Your task to perform on an android device: What's the weather going to be tomorrow? Image 0: 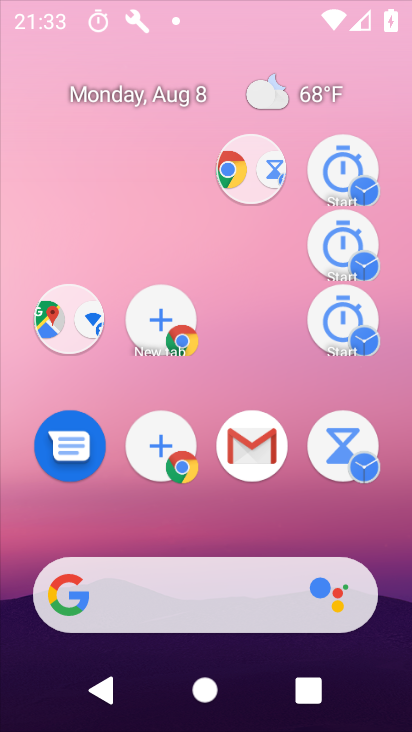
Step 0: click (186, 170)
Your task to perform on an android device: What's the weather going to be tomorrow? Image 1: 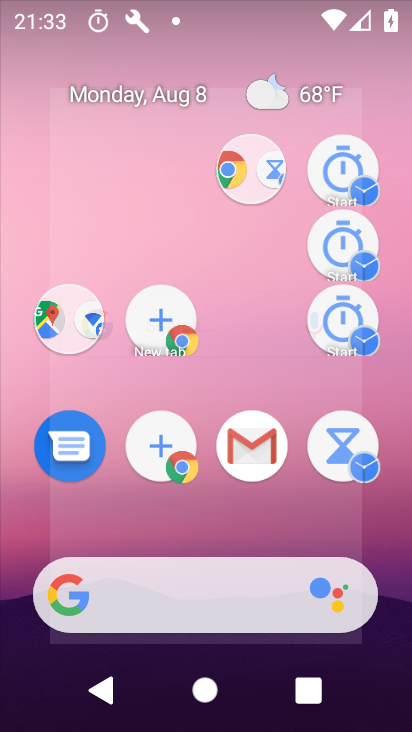
Step 1: drag from (235, 319) to (222, 208)
Your task to perform on an android device: What's the weather going to be tomorrow? Image 2: 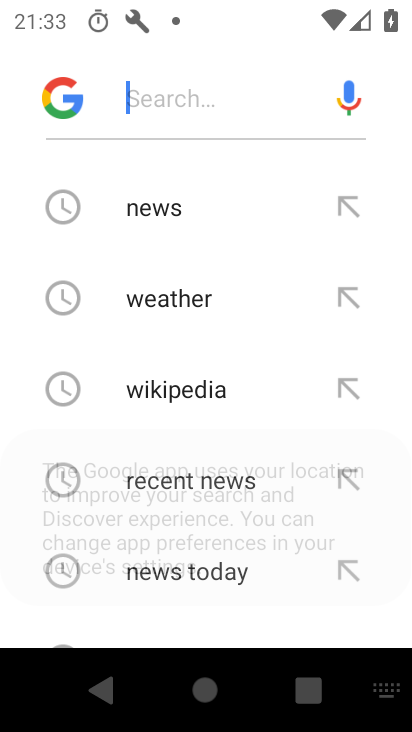
Step 2: press back button
Your task to perform on an android device: What's the weather going to be tomorrow? Image 3: 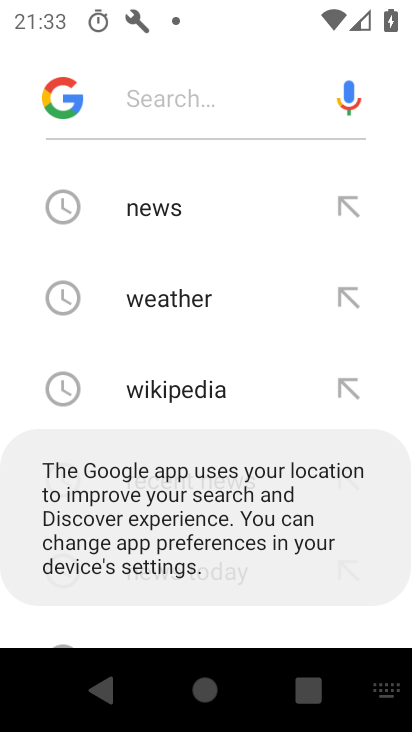
Step 3: press back button
Your task to perform on an android device: What's the weather going to be tomorrow? Image 4: 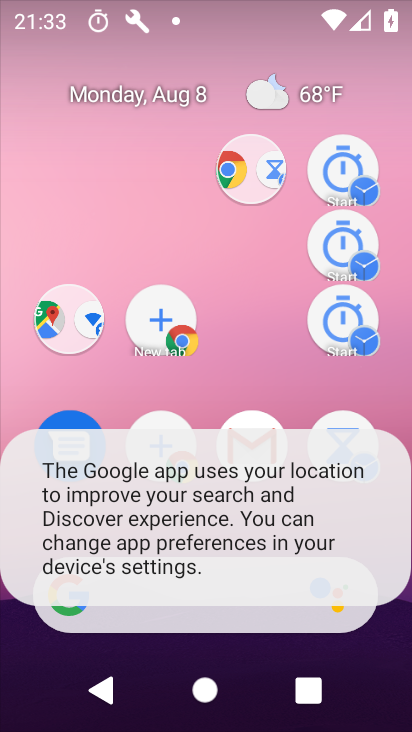
Step 4: press back button
Your task to perform on an android device: What's the weather going to be tomorrow? Image 5: 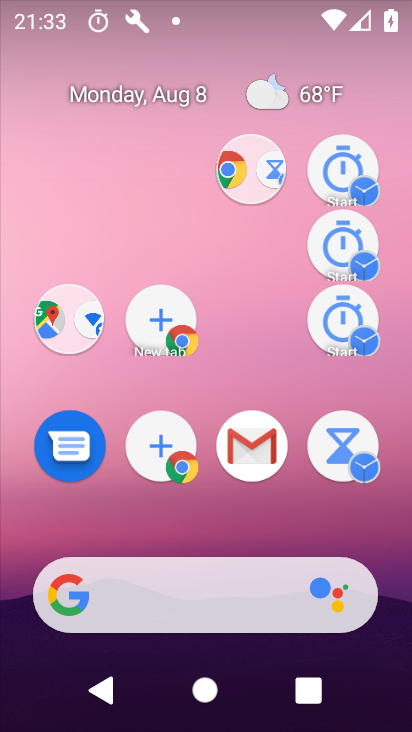
Step 5: drag from (227, 529) to (141, 67)
Your task to perform on an android device: What's the weather going to be tomorrow? Image 6: 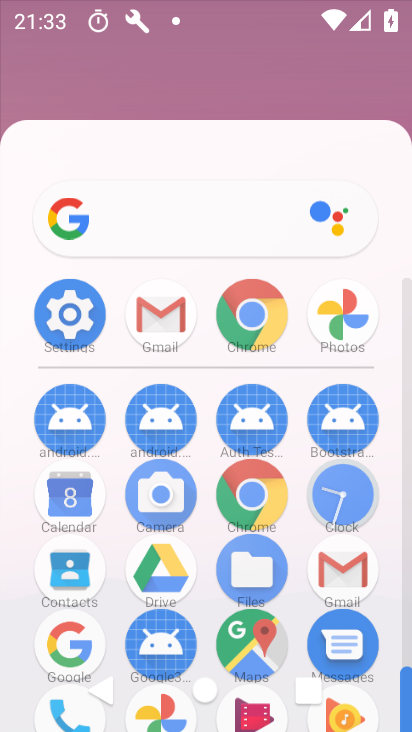
Step 6: drag from (201, 372) to (163, 88)
Your task to perform on an android device: What's the weather going to be tomorrow? Image 7: 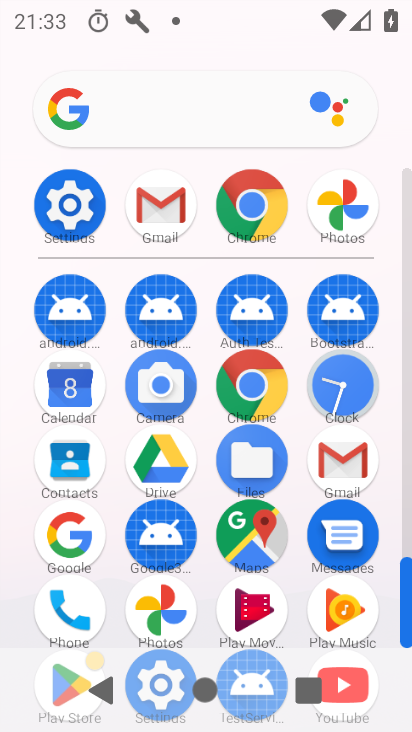
Step 7: click (262, 210)
Your task to perform on an android device: What's the weather going to be tomorrow? Image 8: 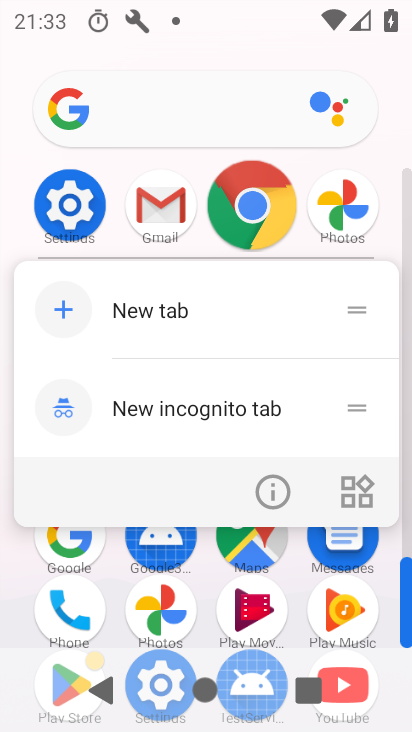
Step 8: click (261, 209)
Your task to perform on an android device: What's the weather going to be tomorrow? Image 9: 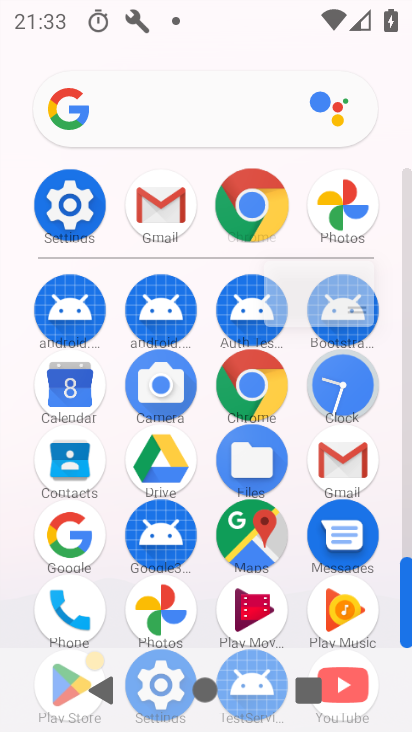
Step 9: click (260, 210)
Your task to perform on an android device: What's the weather going to be tomorrow? Image 10: 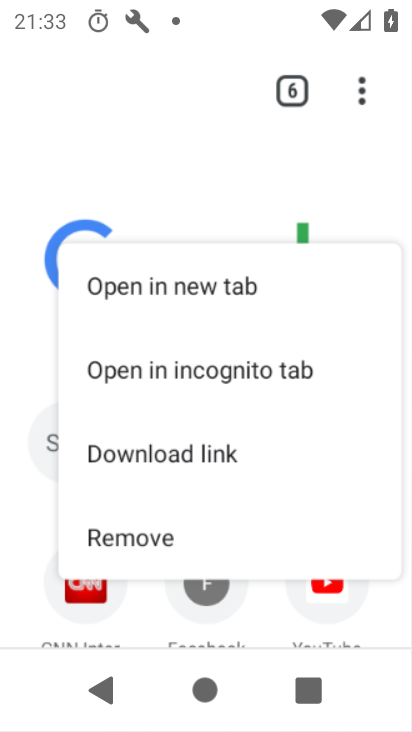
Step 10: click (259, 211)
Your task to perform on an android device: What's the weather going to be tomorrow? Image 11: 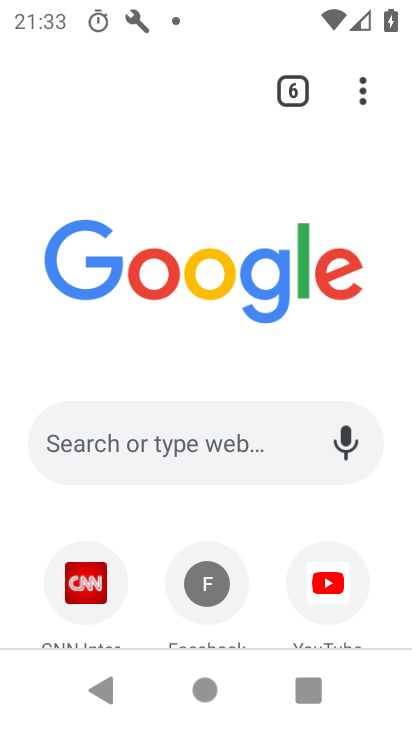
Step 11: click (98, 438)
Your task to perform on an android device: What's the weather going to be tomorrow? Image 12: 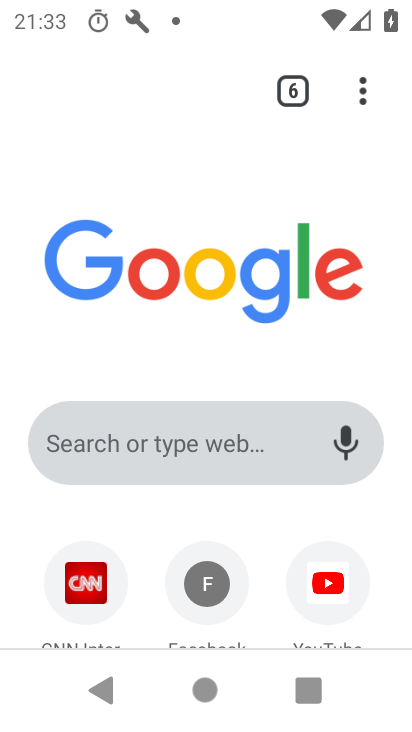
Step 12: click (104, 440)
Your task to perform on an android device: What's the weather going to be tomorrow? Image 13: 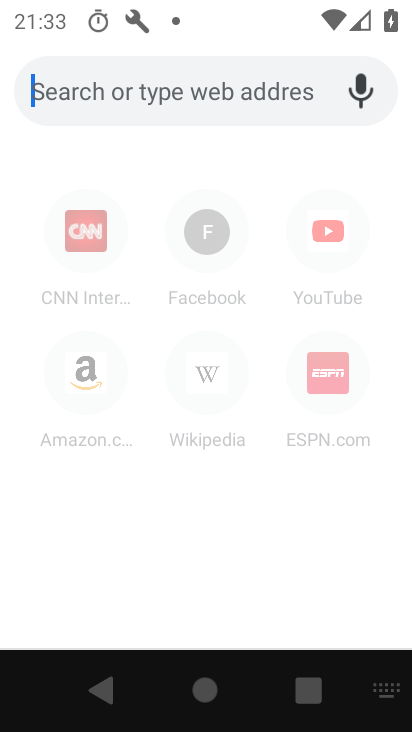
Step 13: click (110, 439)
Your task to perform on an android device: What's the weather going to be tomorrow? Image 14: 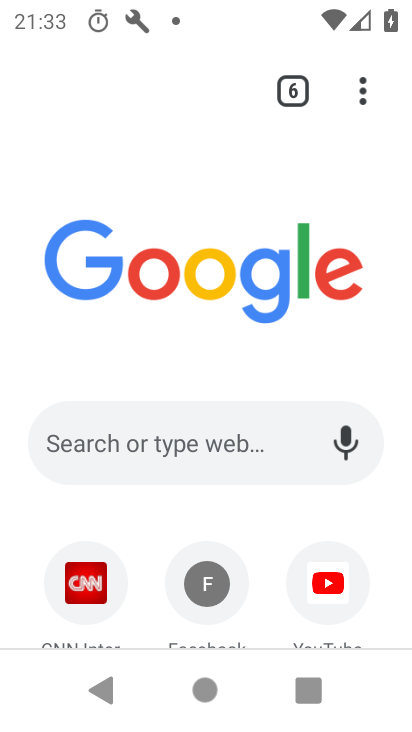
Step 14: click (79, 442)
Your task to perform on an android device: What's the weather going to be tomorrow? Image 15: 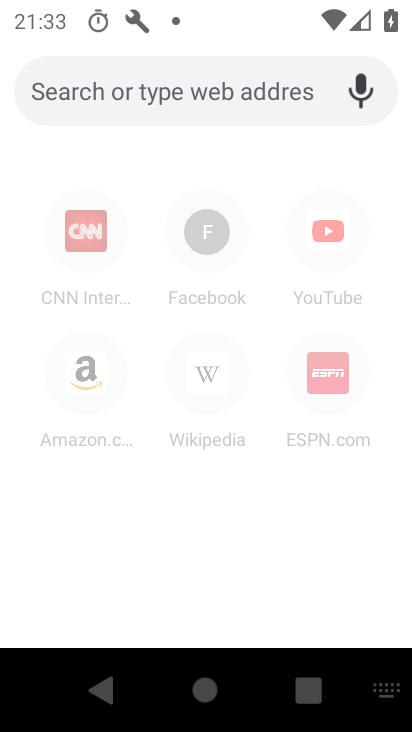
Step 15: type "what's the weather going to be tomorrow"
Your task to perform on an android device: What's the weather going to be tomorrow? Image 16: 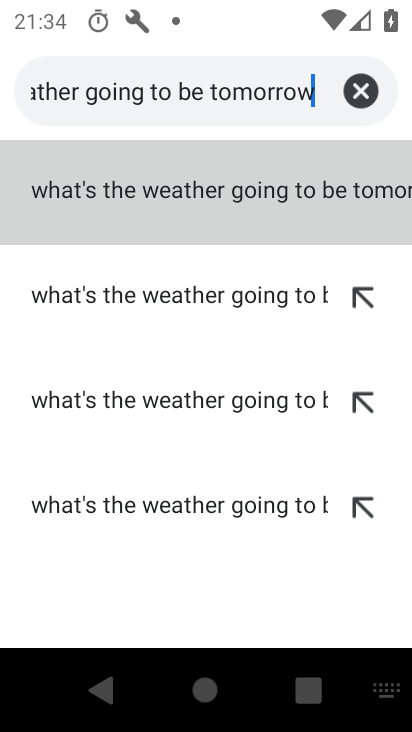
Step 16: click (201, 181)
Your task to perform on an android device: What's the weather going to be tomorrow? Image 17: 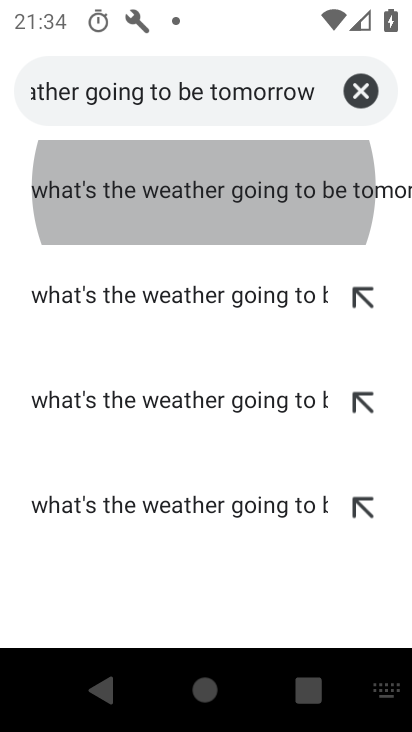
Step 17: click (205, 180)
Your task to perform on an android device: What's the weather going to be tomorrow? Image 18: 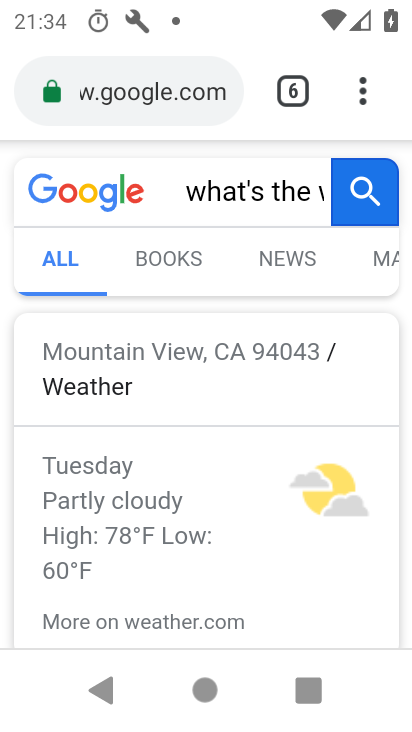
Step 18: click (222, 278)
Your task to perform on an android device: What's the weather going to be tomorrow? Image 19: 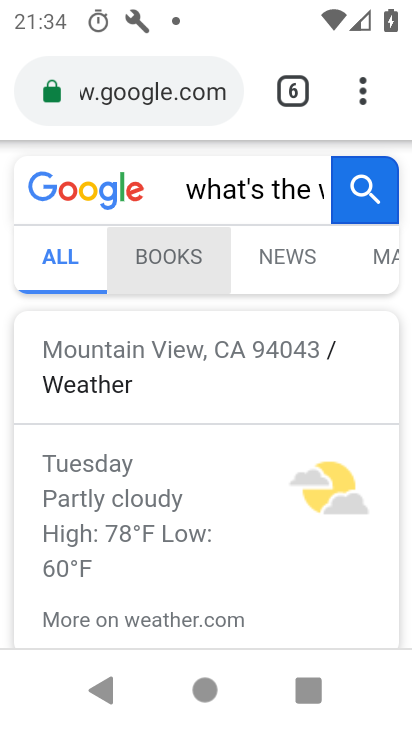
Step 19: task complete